Your task to perform on an android device: Open Reddit.com Image 0: 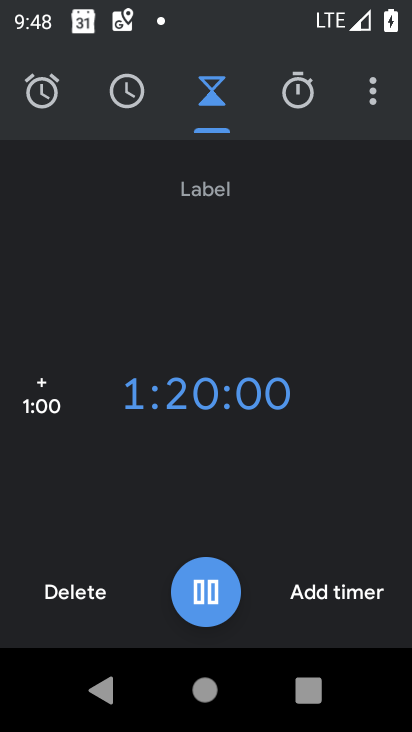
Step 0: press home button
Your task to perform on an android device: Open Reddit.com Image 1: 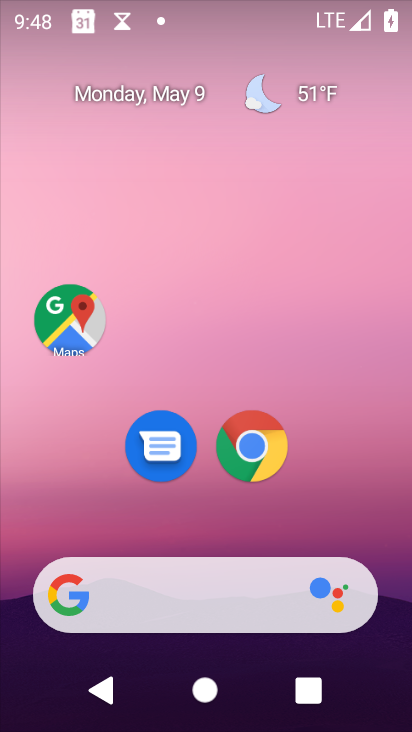
Step 1: click (254, 459)
Your task to perform on an android device: Open Reddit.com Image 2: 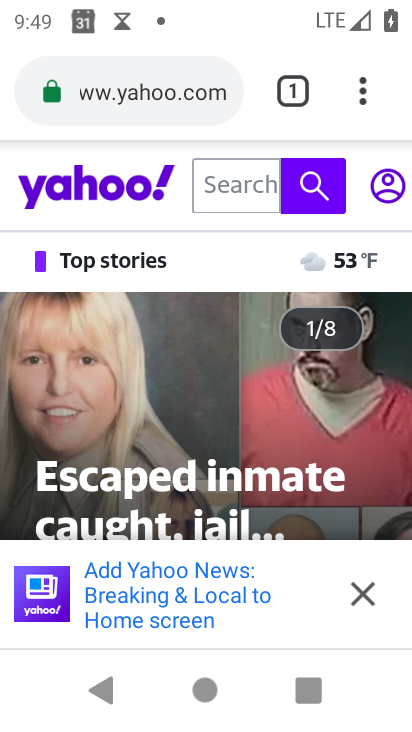
Step 2: click (295, 94)
Your task to perform on an android device: Open Reddit.com Image 3: 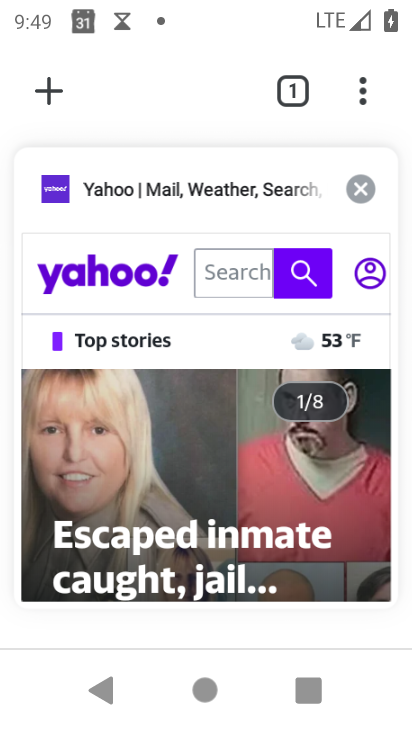
Step 3: click (48, 97)
Your task to perform on an android device: Open Reddit.com Image 4: 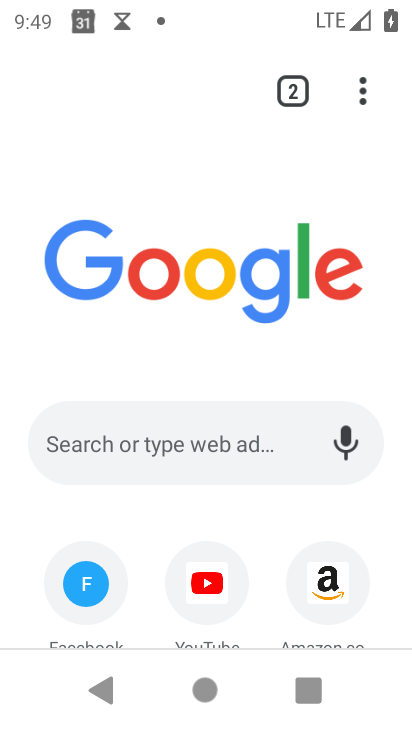
Step 4: click (229, 447)
Your task to perform on an android device: Open Reddit.com Image 5: 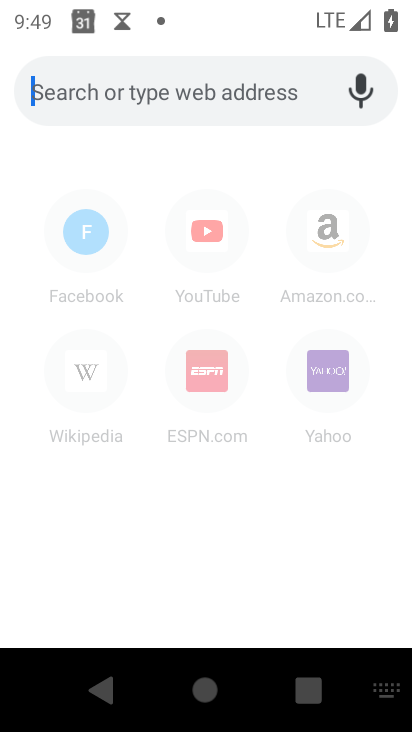
Step 5: type "reddit.com"
Your task to perform on an android device: Open Reddit.com Image 6: 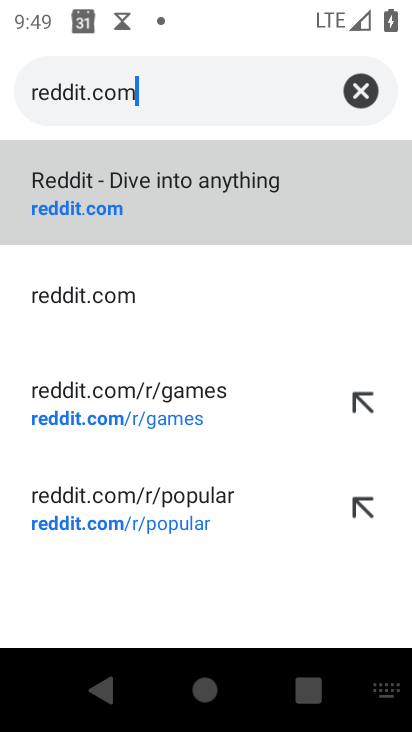
Step 6: click (82, 211)
Your task to perform on an android device: Open Reddit.com Image 7: 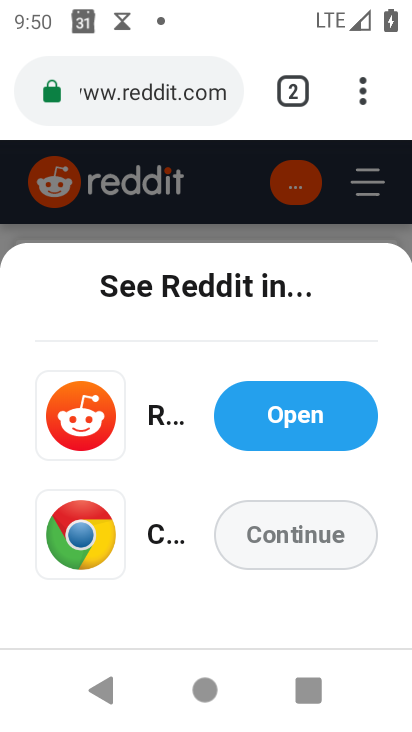
Step 7: click (287, 543)
Your task to perform on an android device: Open Reddit.com Image 8: 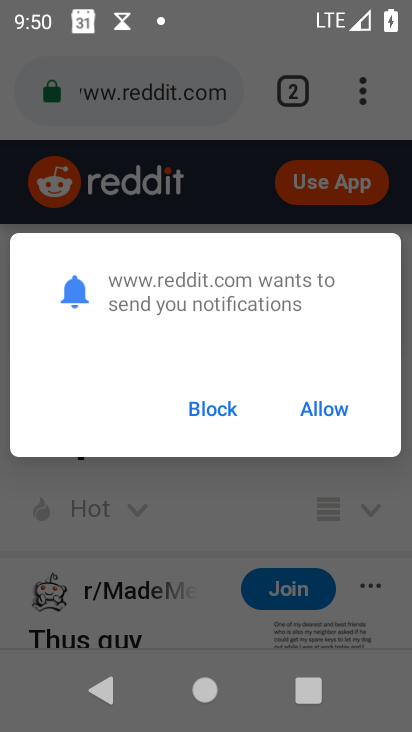
Step 8: click (320, 418)
Your task to perform on an android device: Open Reddit.com Image 9: 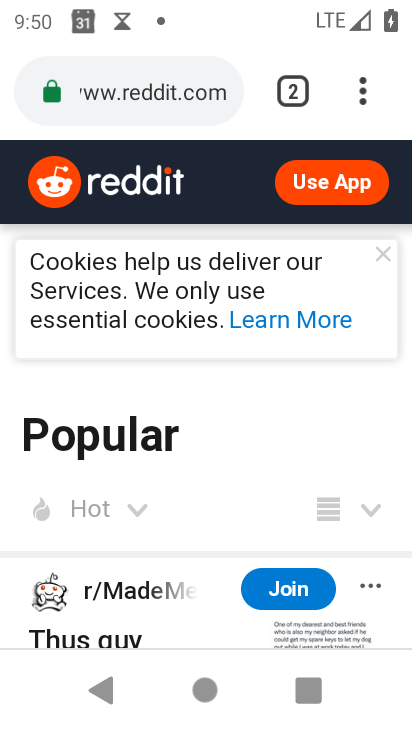
Step 9: task complete